Your task to perform on an android device: Open Yahoo.com Image 0: 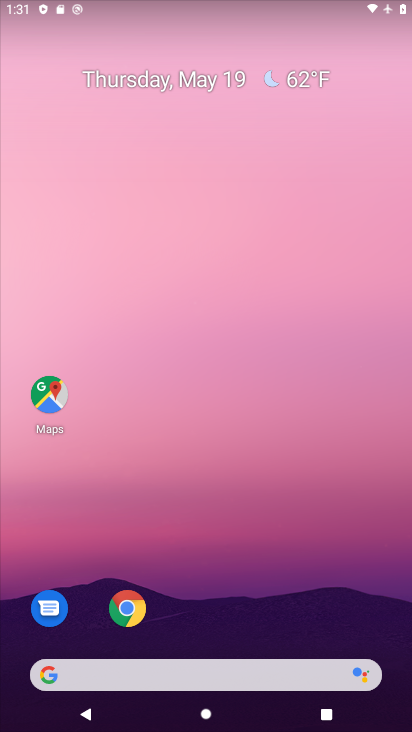
Step 0: drag from (202, 597) to (171, 8)
Your task to perform on an android device: Open Yahoo.com Image 1: 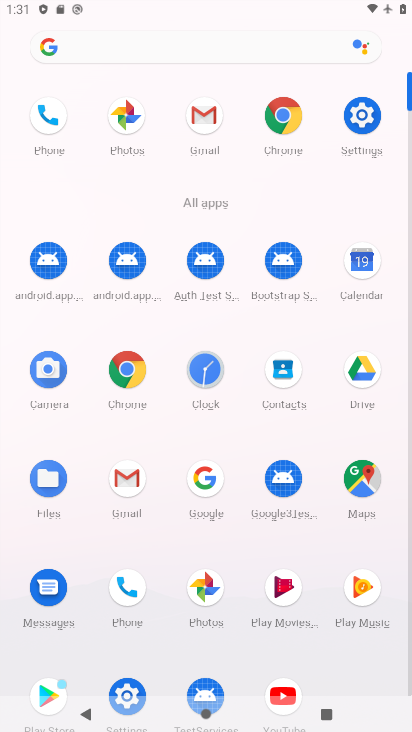
Step 1: click (287, 147)
Your task to perform on an android device: Open Yahoo.com Image 2: 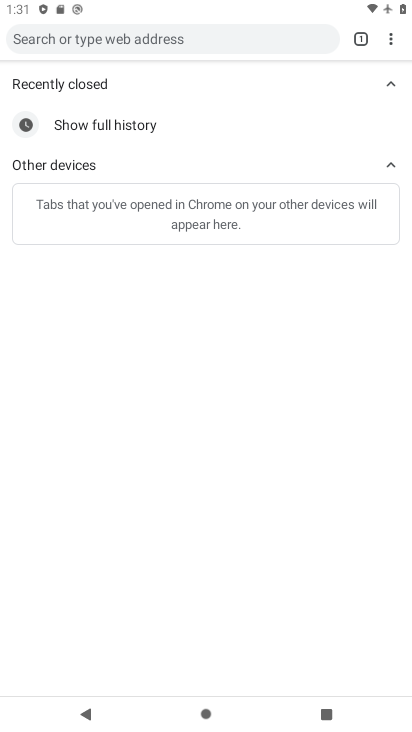
Step 2: click (97, 37)
Your task to perform on an android device: Open Yahoo.com Image 3: 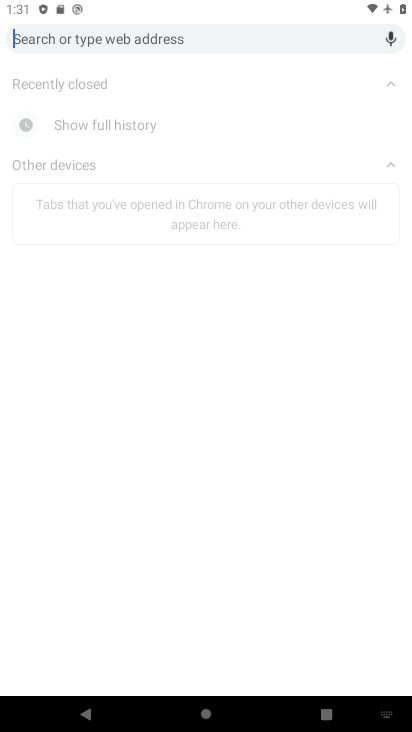
Step 3: type "yahoo.com"
Your task to perform on an android device: Open Yahoo.com Image 4: 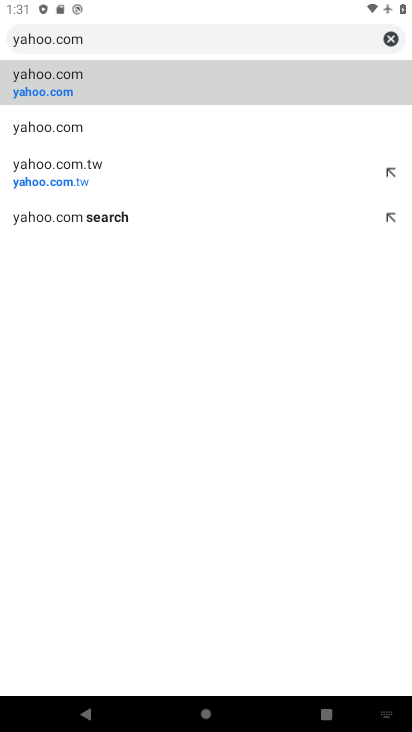
Step 4: click (89, 92)
Your task to perform on an android device: Open Yahoo.com Image 5: 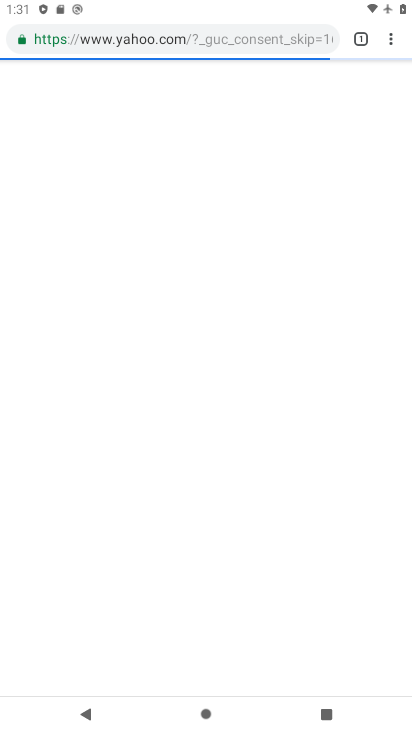
Step 5: task complete